Your task to perform on an android device: set an alarm Image 0: 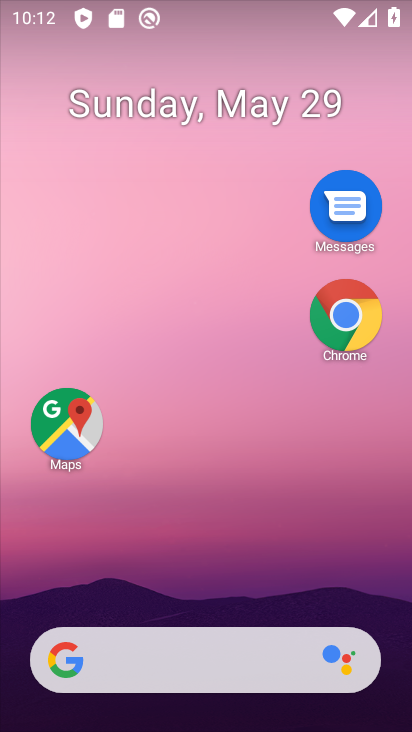
Step 0: drag from (146, 595) to (152, 2)
Your task to perform on an android device: set an alarm Image 1: 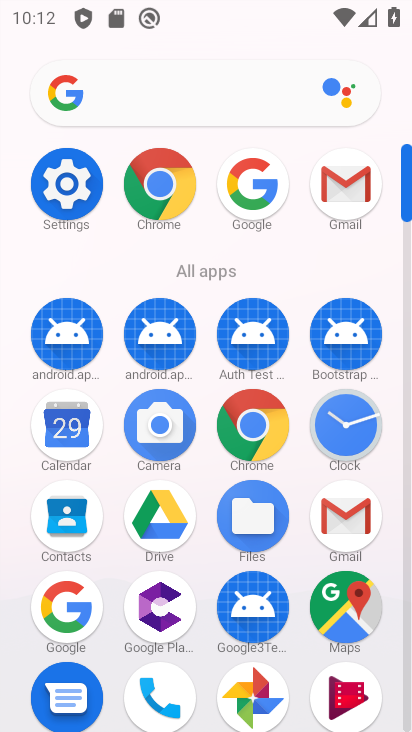
Step 1: click (331, 441)
Your task to perform on an android device: set an alarm Image 2: 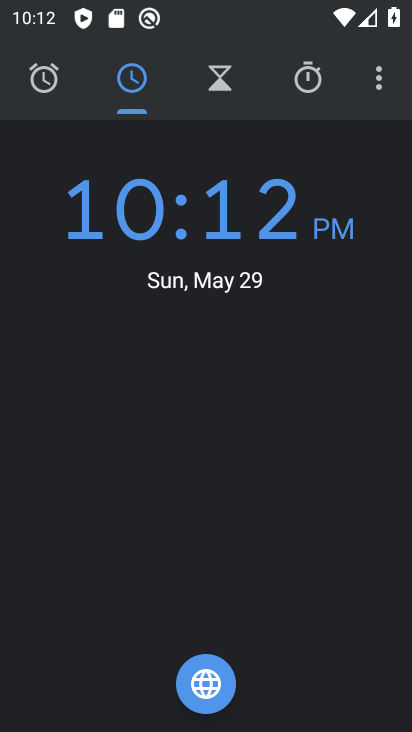
Step 2: click (34, 94)
Your task to perform on an android device: set an alarm Image 3: 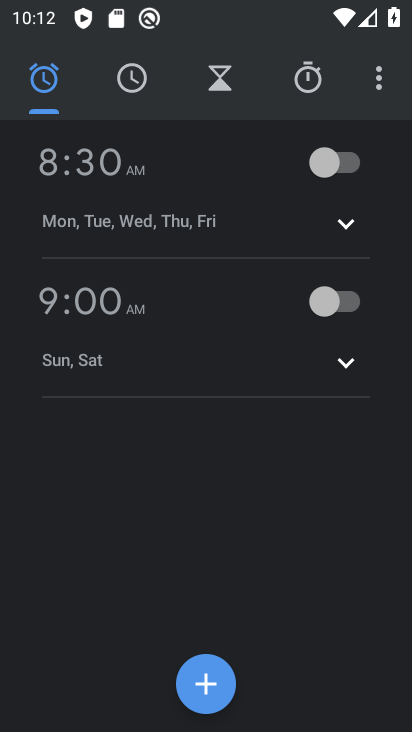
Step 3: click (350, 168)
Your task to perform on an android device: set an alarm Image 4: 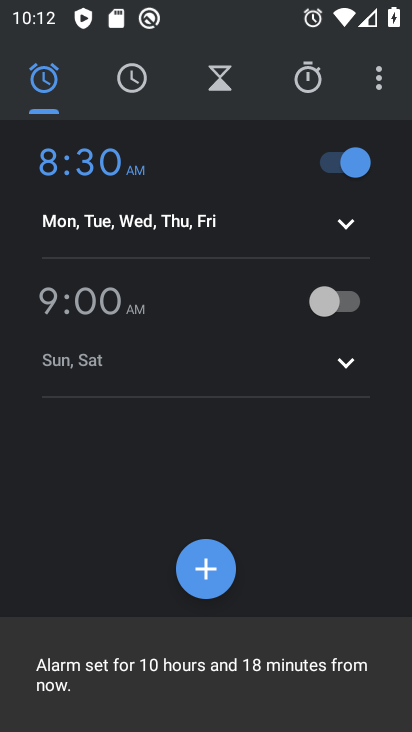
Step 4: task complete